Your task to perform on an android device: refresh tabs in the chrome app Image 0: 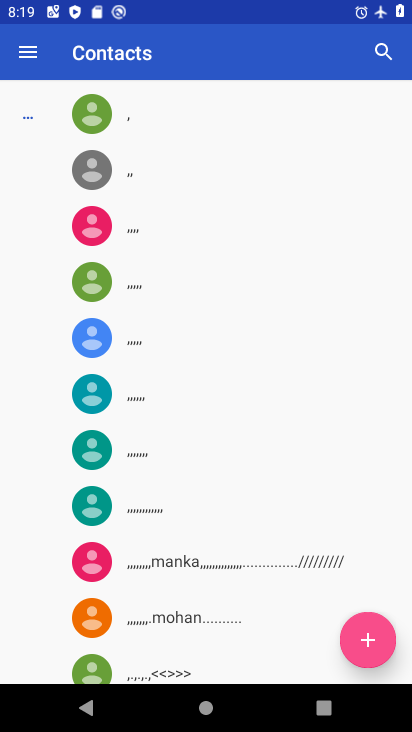
Step 0: press home button
Your task to perform on an android device: refresh tabs in the chrome app Image 1: 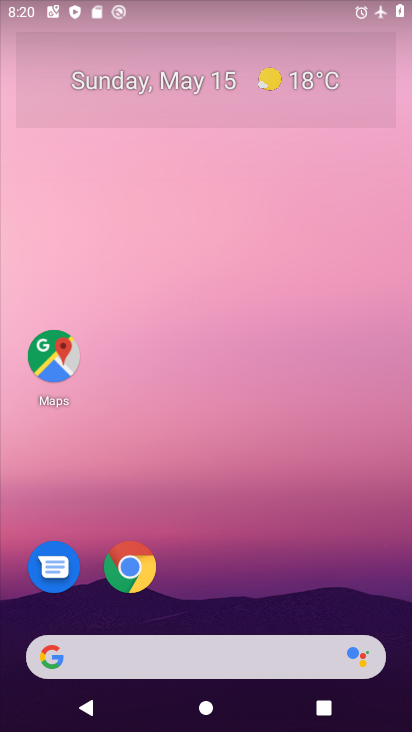
Step 1: click (145, 563)
Your task to perform on an android device: refresh tabs in the chrome app Image 2: 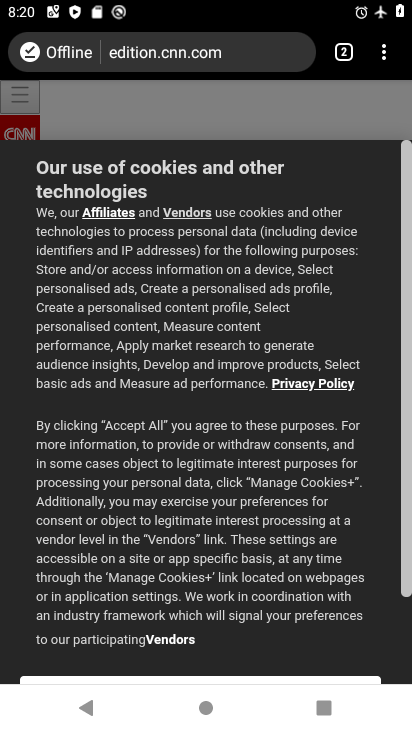
Step 2: click (387, 50)
Your task to perform on an android device: refresh tabs in the chrome app Image 3: 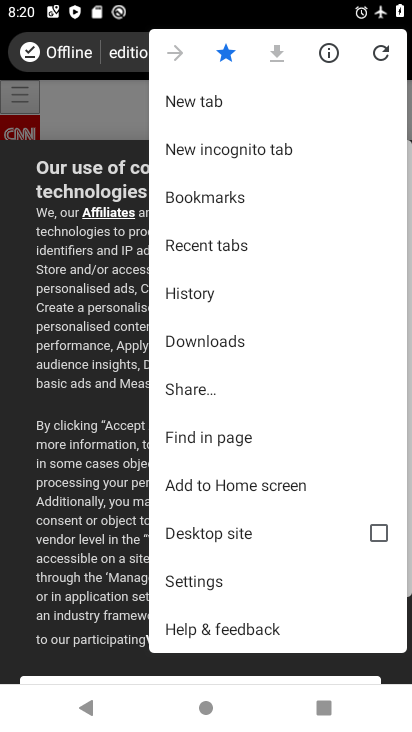
Step 3: click (384, 50)
Your task to perform on an android device: refresh tabs in the chrome app Image 4: 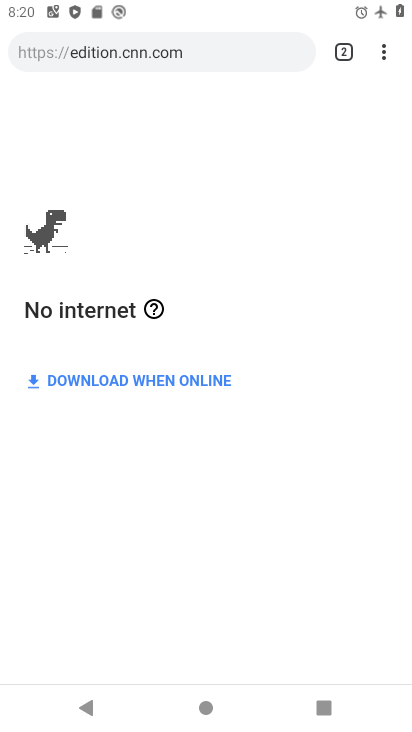
Step 4: task complete